Your task to perform on an android device: Search for the best rated circular saw on Lowes.com Image 0: 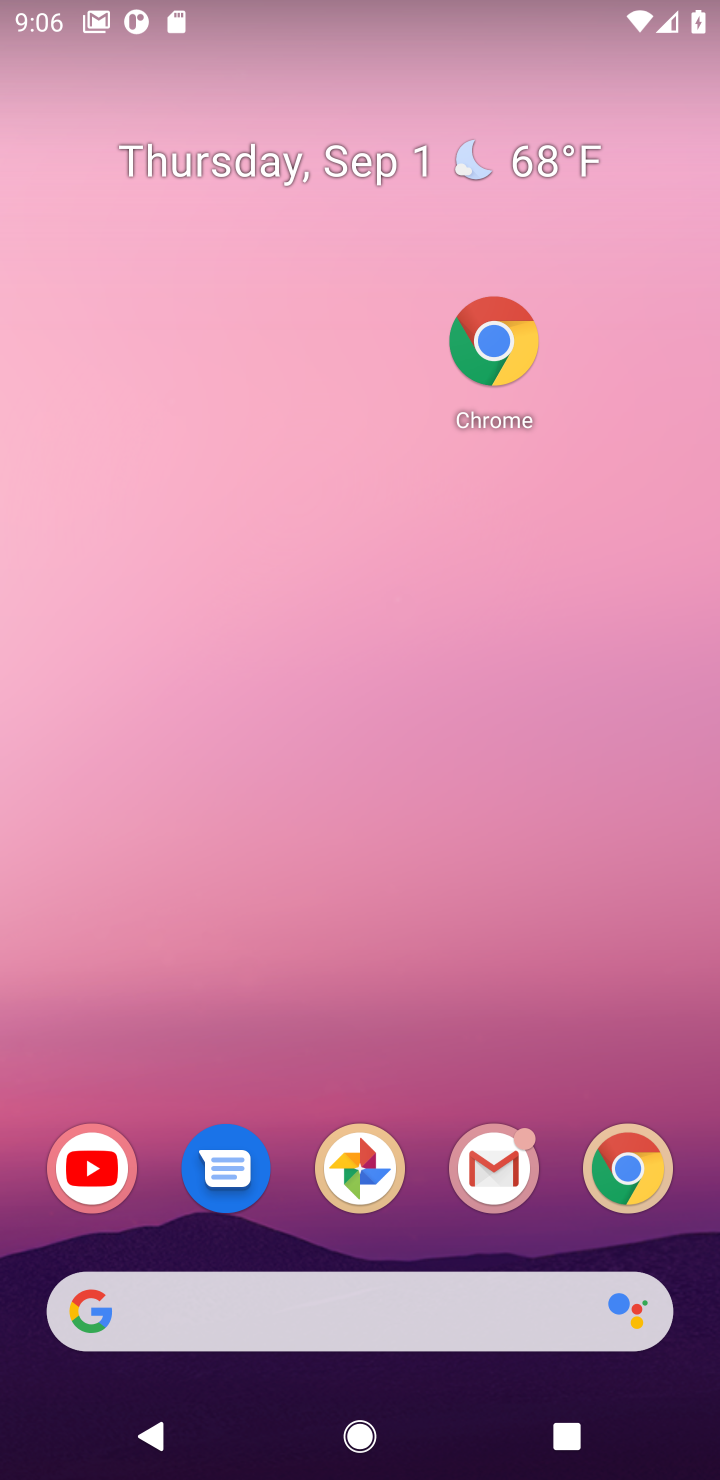
Step 0: drag from (290, 1209) to (315, 292)
Your task to perform on an android device: Search for the best rated circular saw on Lowes.com Image 1: 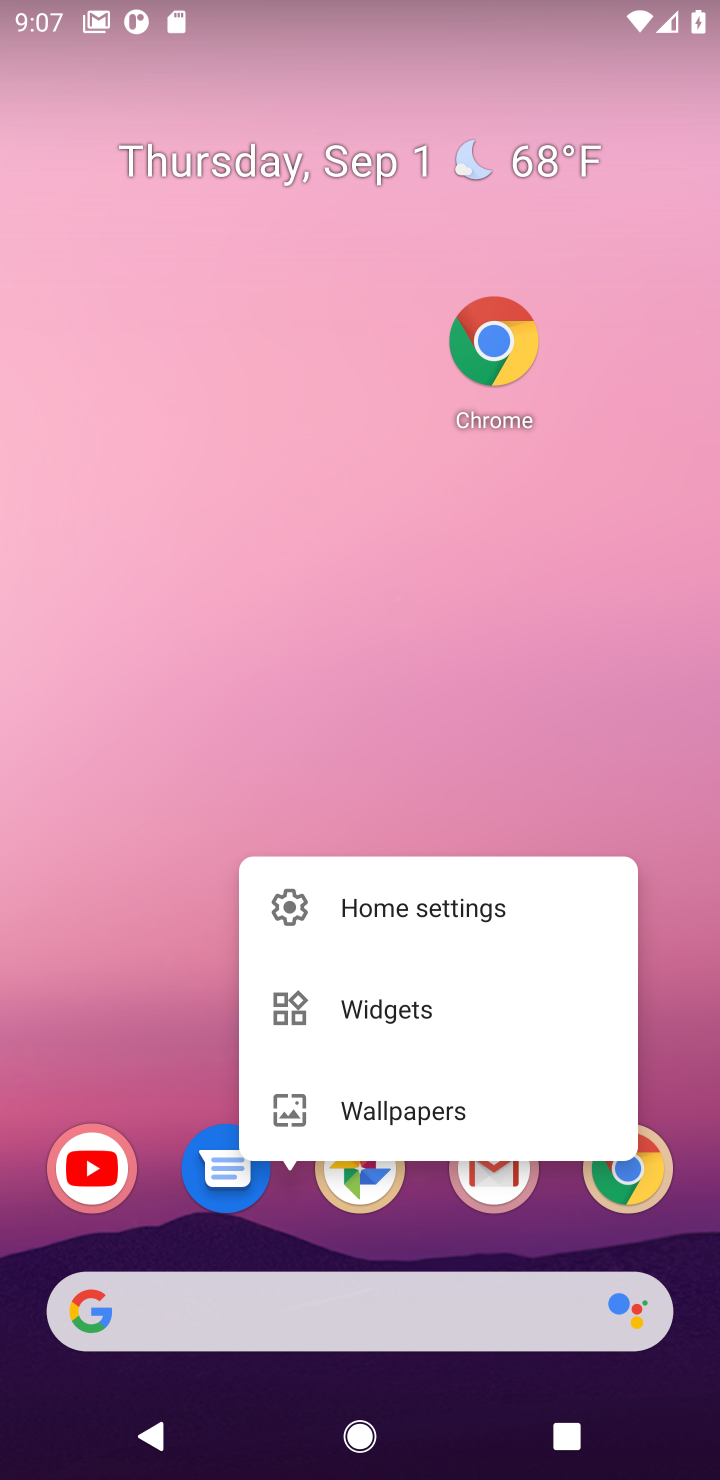
Step 1: click (378, 777)
Your task to perform on an android device: Search for the best rated circular saw on Lowes.com Image 2: 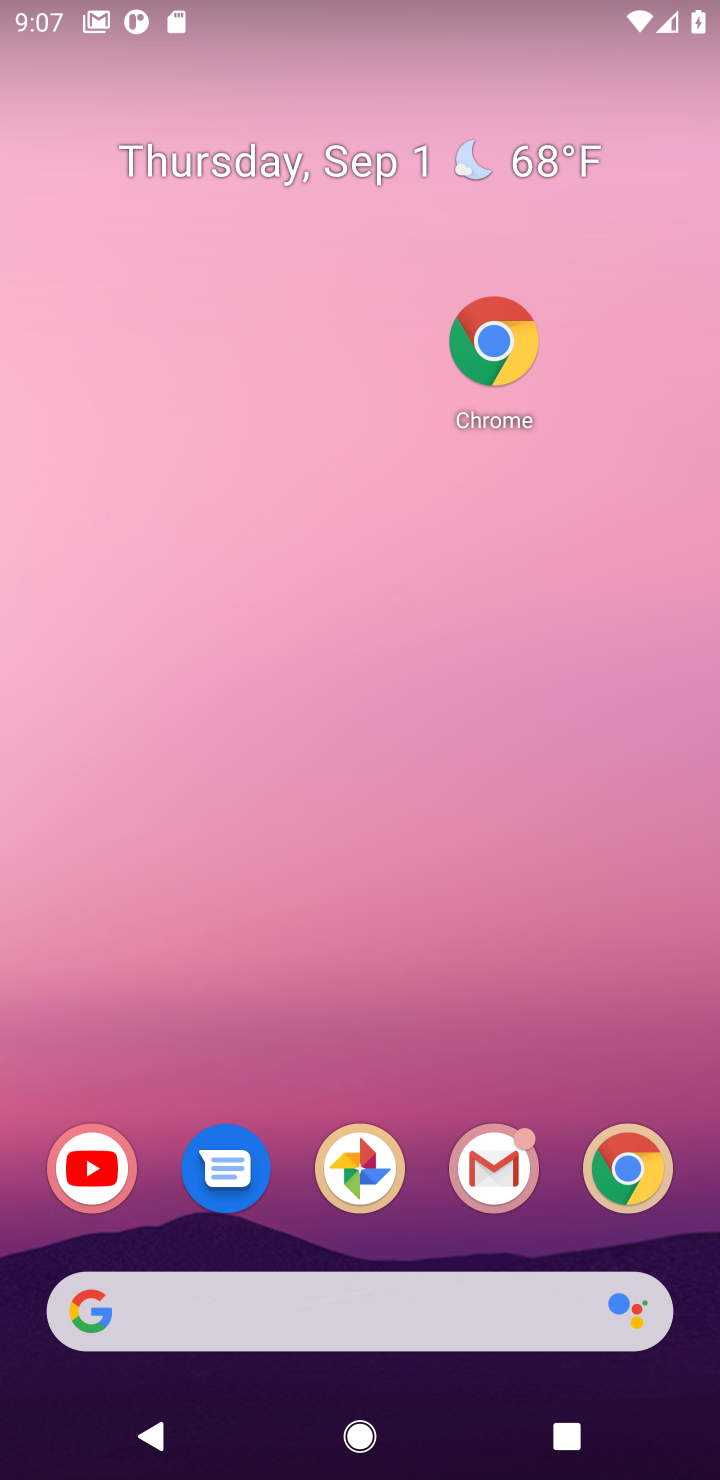
Step 2: drag from (330, 1293) to (323, 168)
Your task to perform on an android device: Search for the best rated circular saw on Lowes.com Image 3: 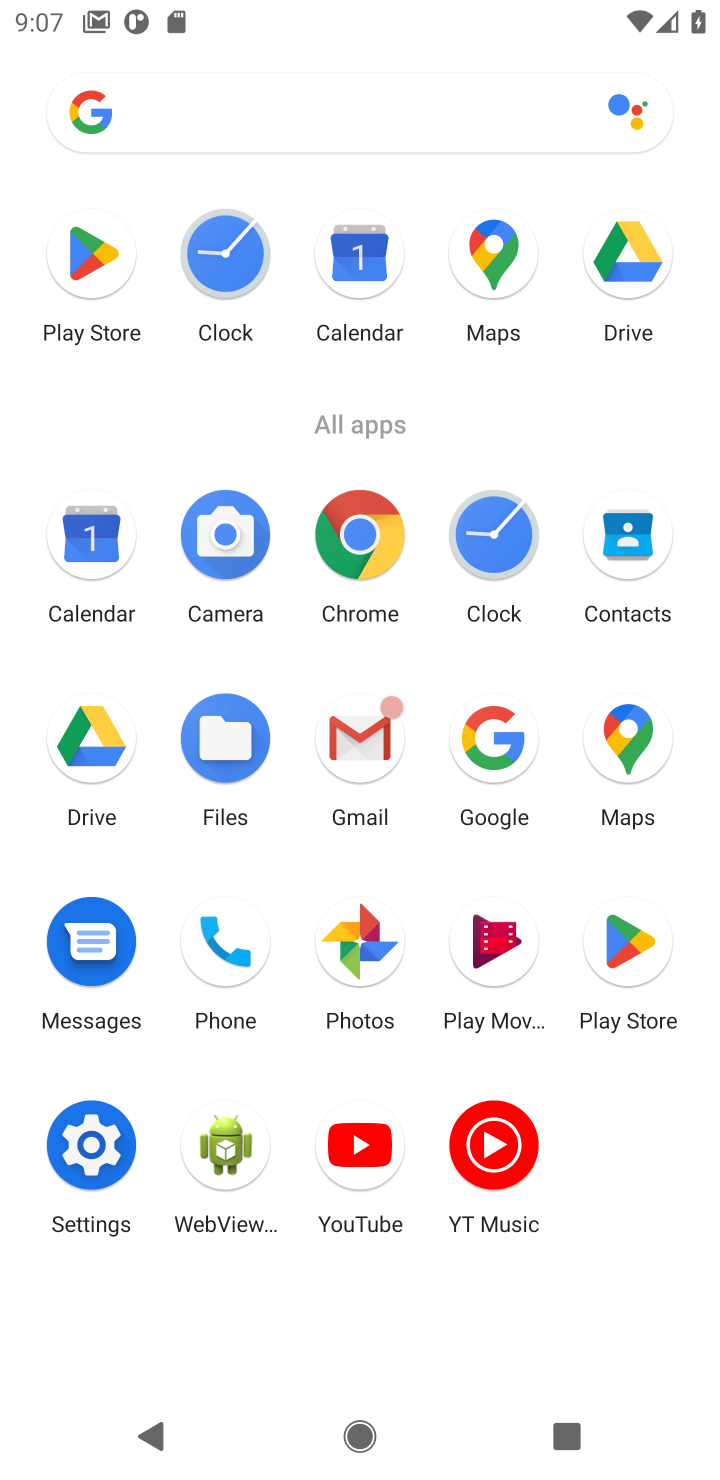
Step 3: click (489, 735)
Your task to perform on an android device: Search for the best rated circular saw on Lowes.com Image 4: 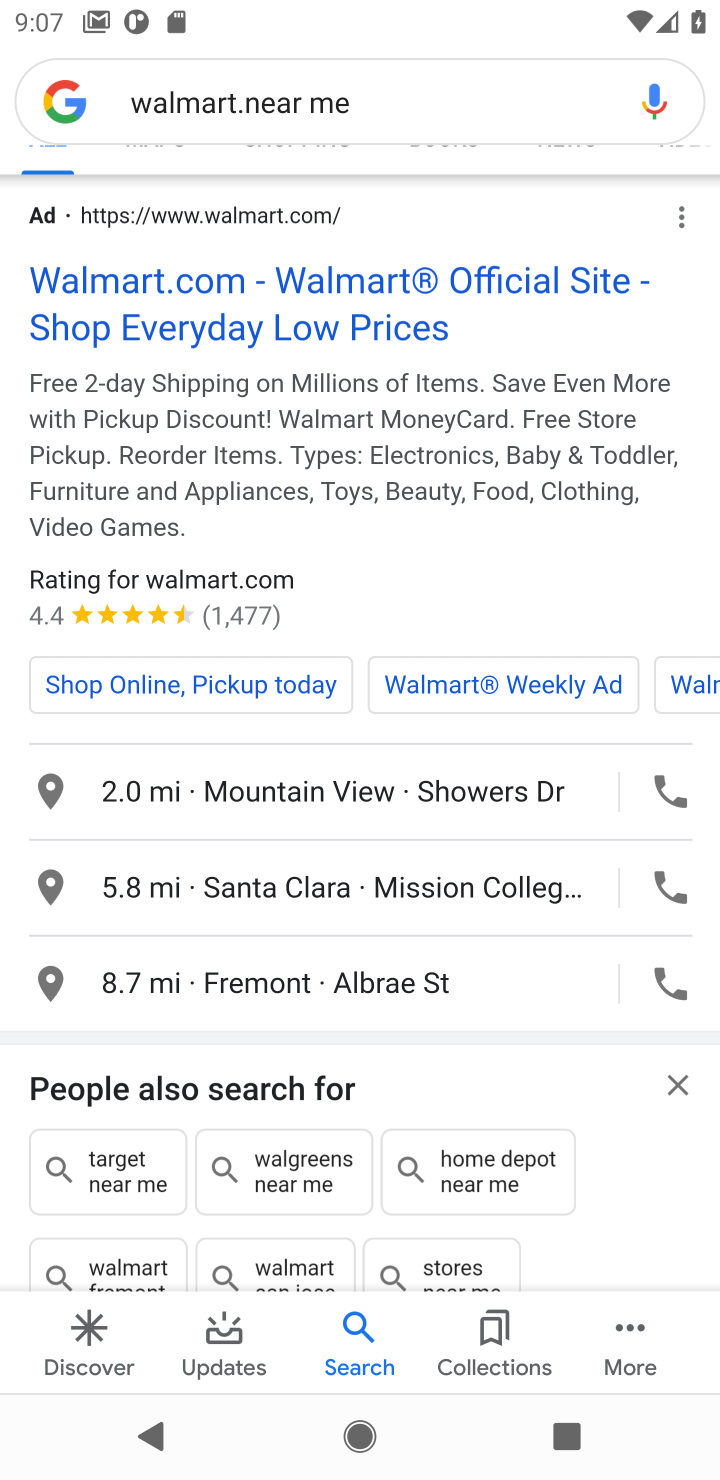
Step 4: click (431, 84)
Your task to perform on an android device: Search for the best rated circular saw on Lowes.com Image 5: 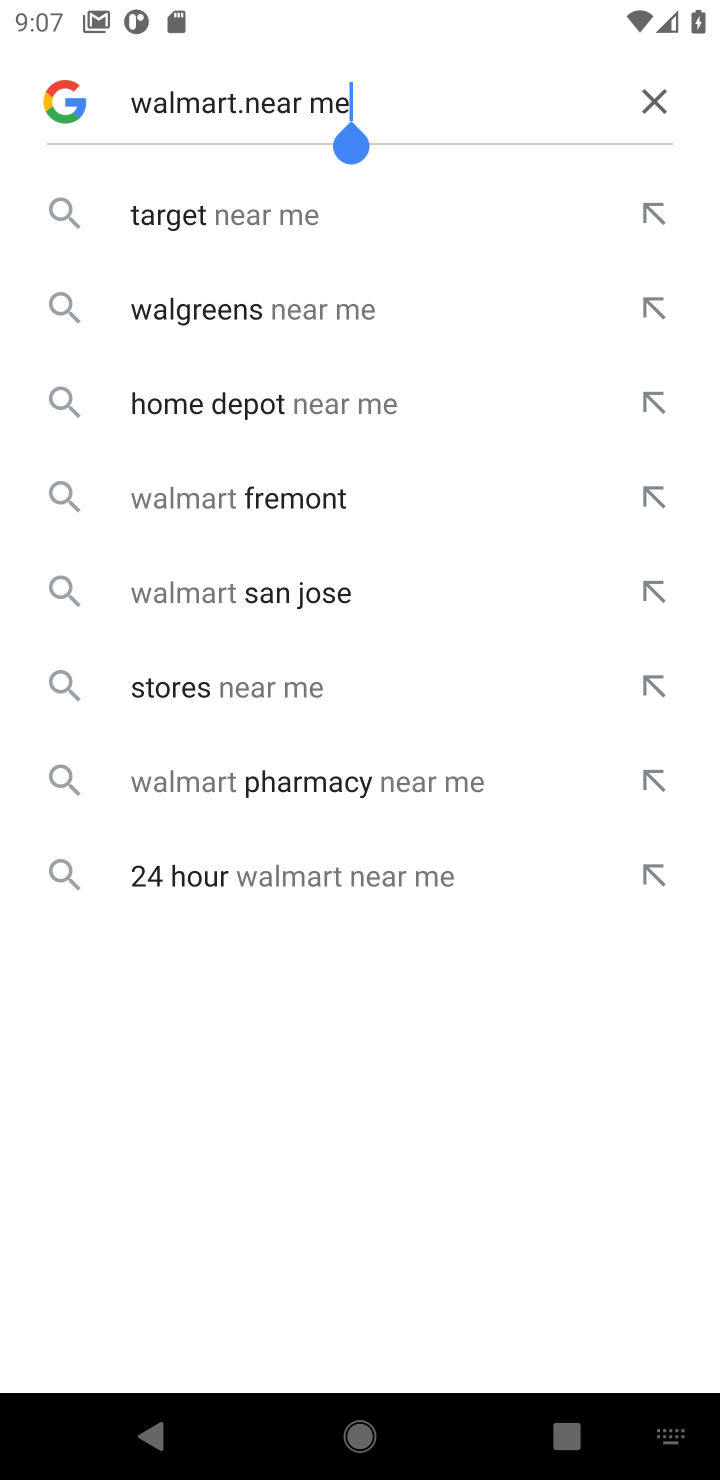
Step 5: click (645, 108)
Your task to perform on an android device: Search for the best rated circular saw on Lowes.com Image 6: 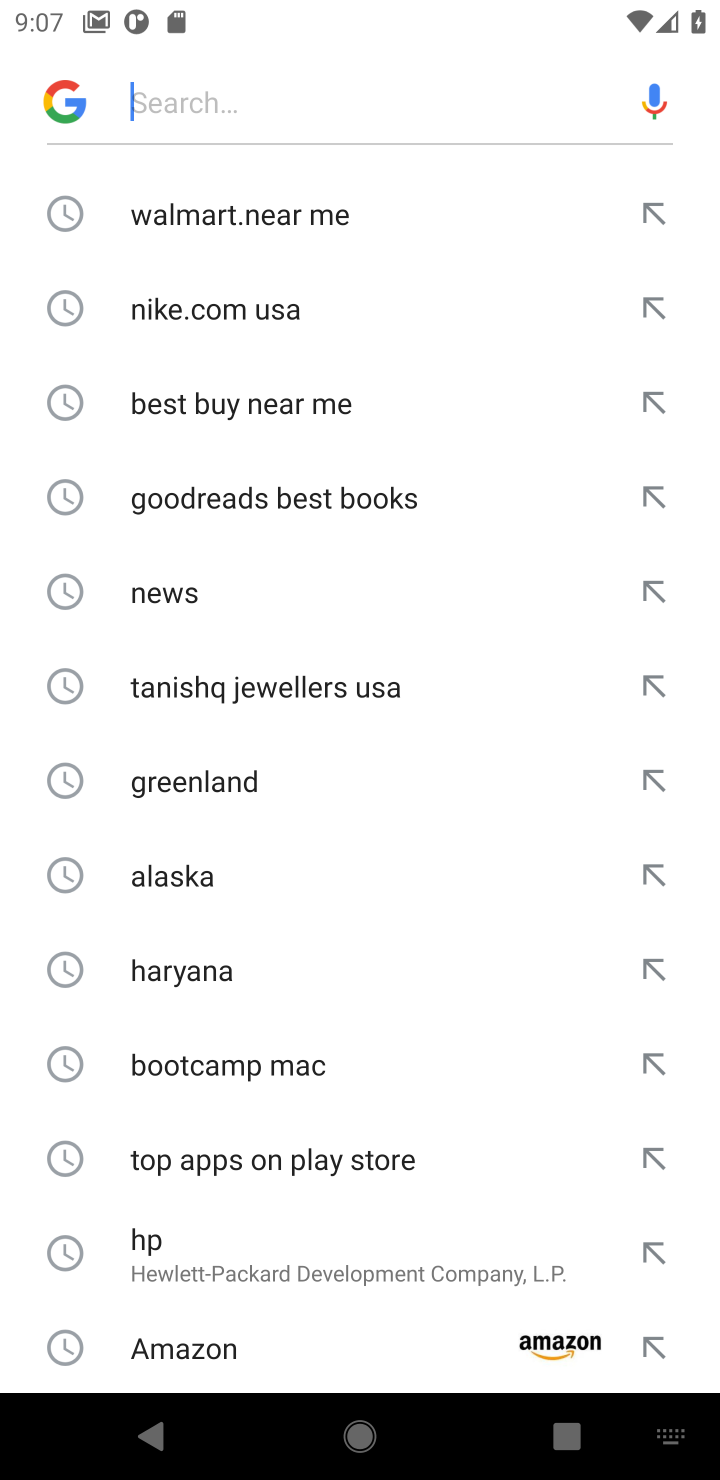
Step 6: click (323, 102)
Your task to perform on an android device: Search for the best rated circular saw on Lowes.com Image 7: 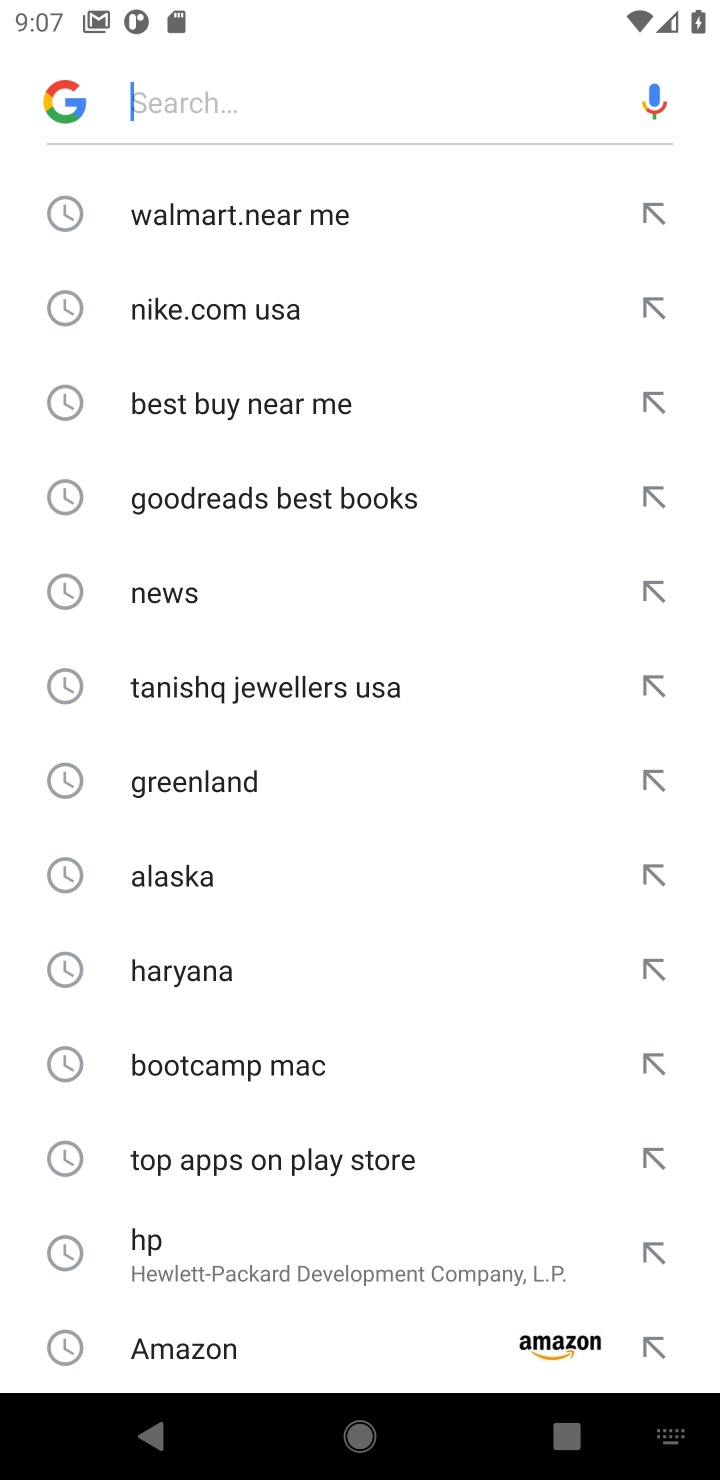
Step 7: type "Lowes.com "
Your task to perform on an android device: Search for the best rated circular saw on Lowes.com Image 8: 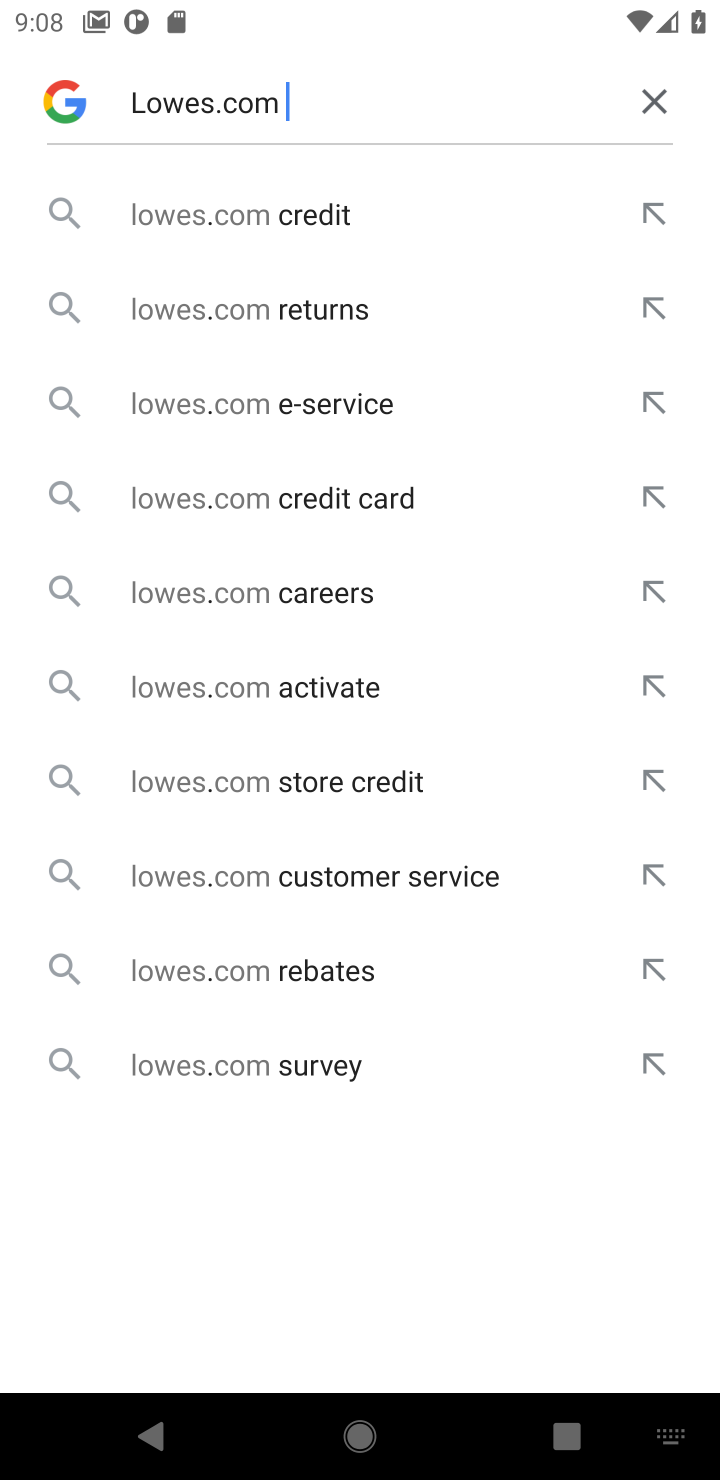
Step 8: click (367, 322)
Your task to perform on an android device: Search for the best rated circular saw on Lowes.com Image 9: 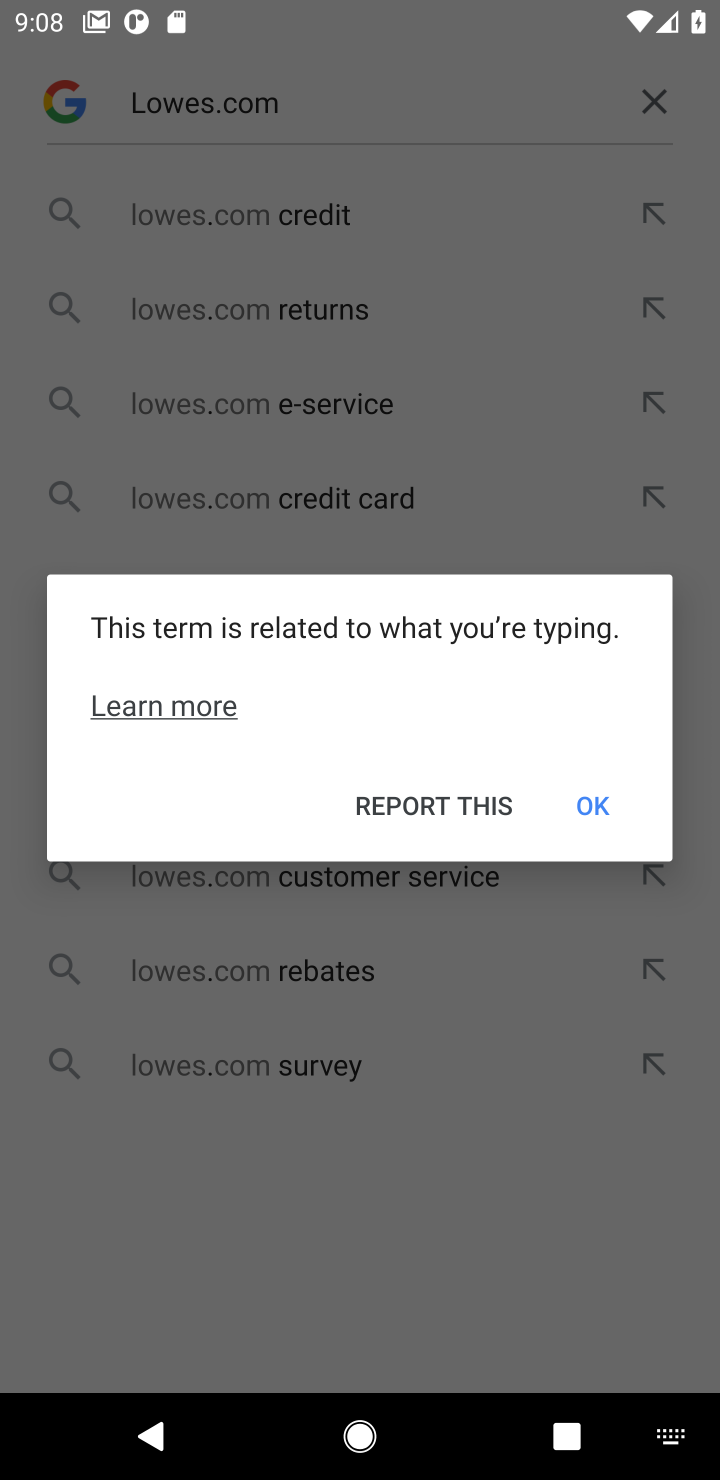
Step 9: click (594, 802)
Your task to perform on an android device: Search for the best rated circular saw on Lowes.com Image 10: 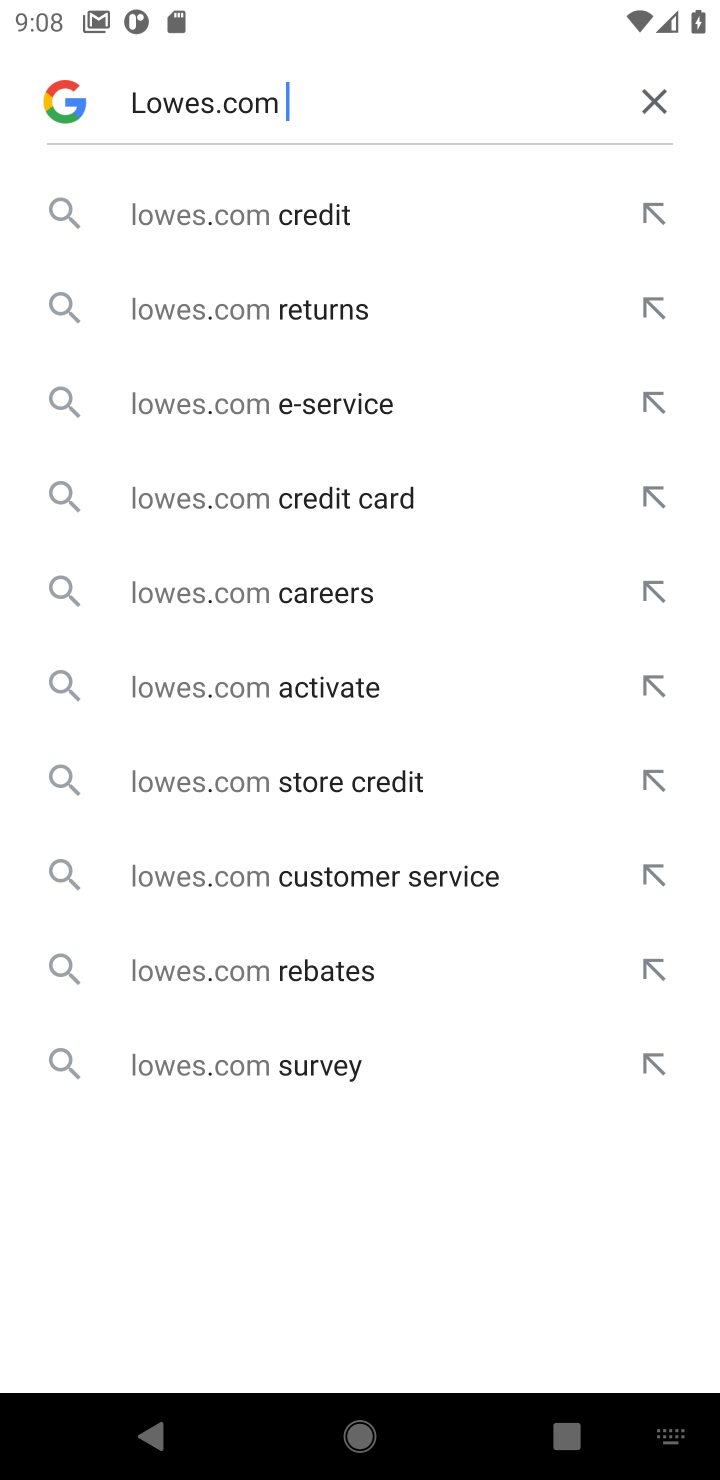
Step 10: click (285, 763)
Your task to perform on an android device: Search for the best rated circular saw on Lowes.com Image 11: 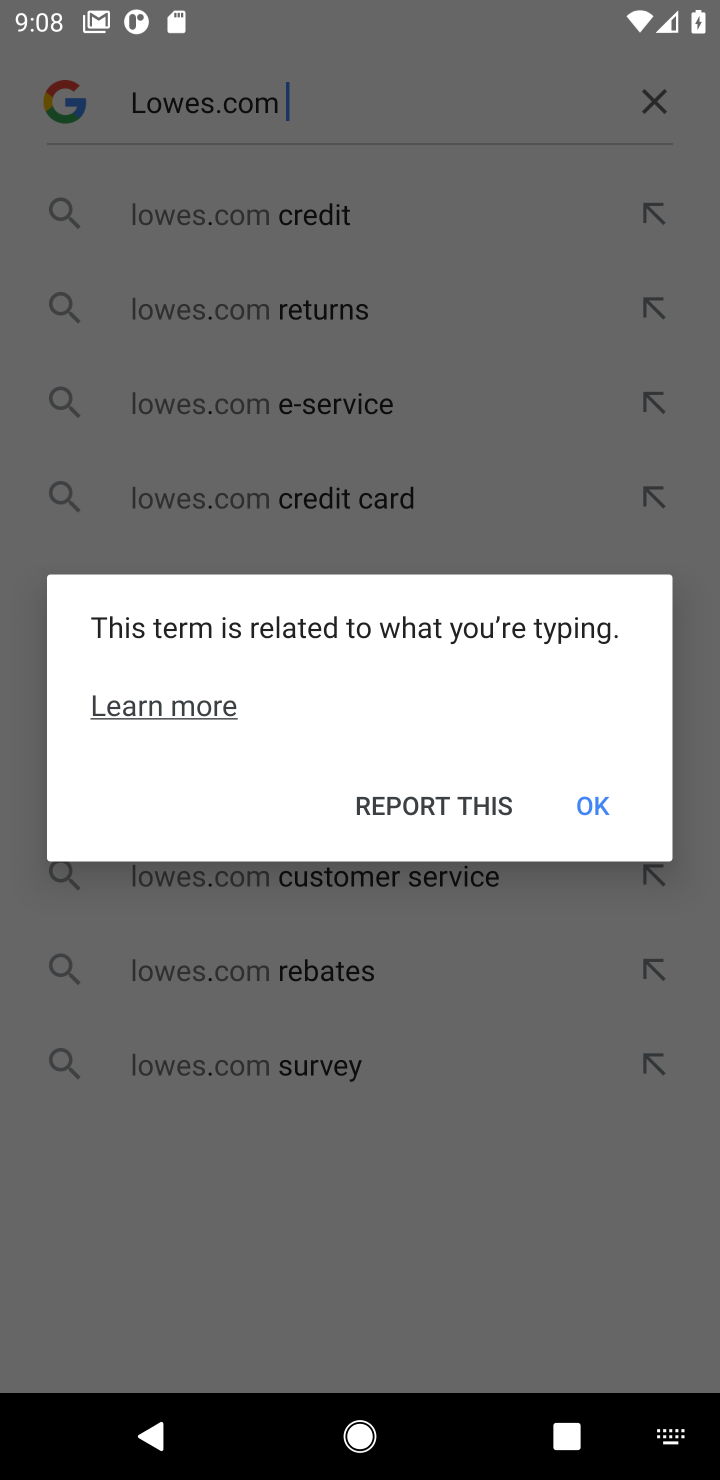
Step 11: click (584, 802)
Your task to perform on an android device: Search for the best rated circular saw on Lowes.com Image 12: 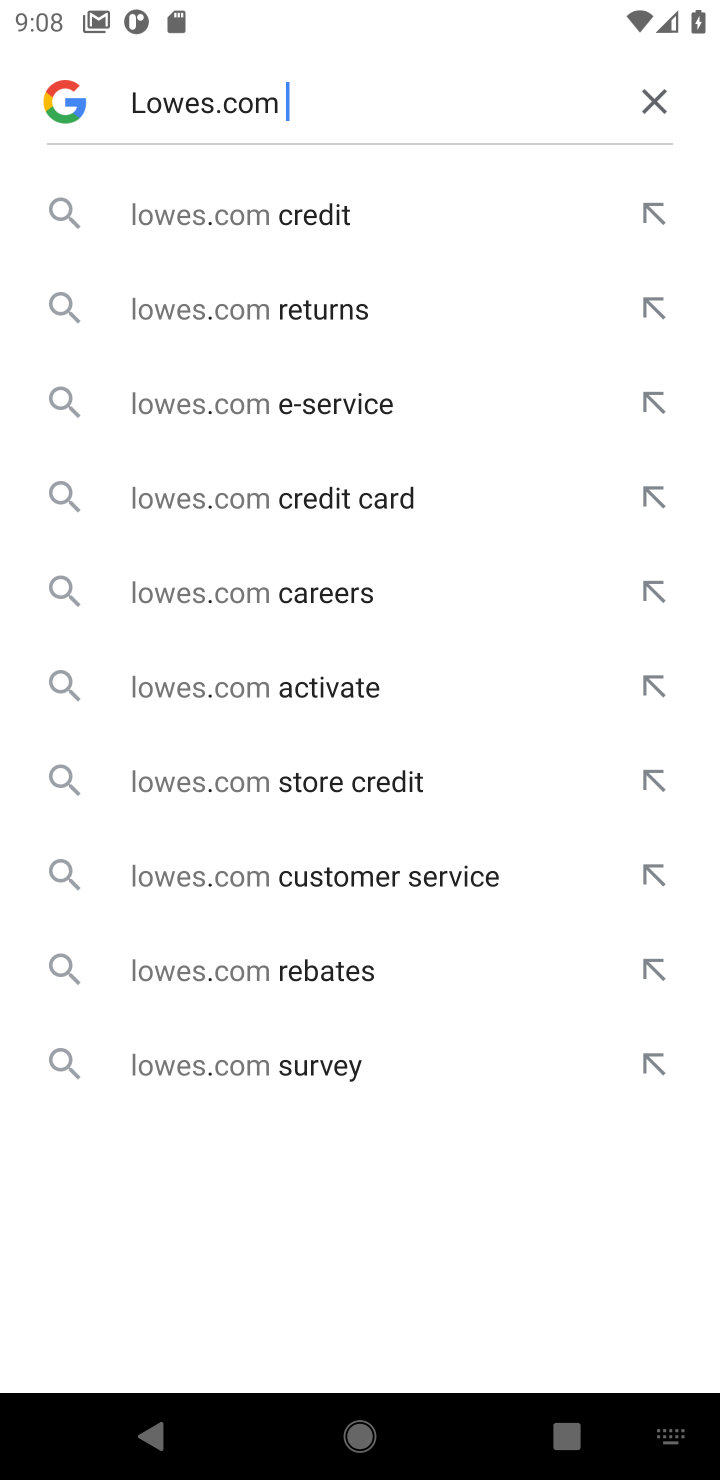
Step 12: click (648, 99)
Your task to perform on an android device: Search for the best rated circular saw on Lowes.com Image 13: 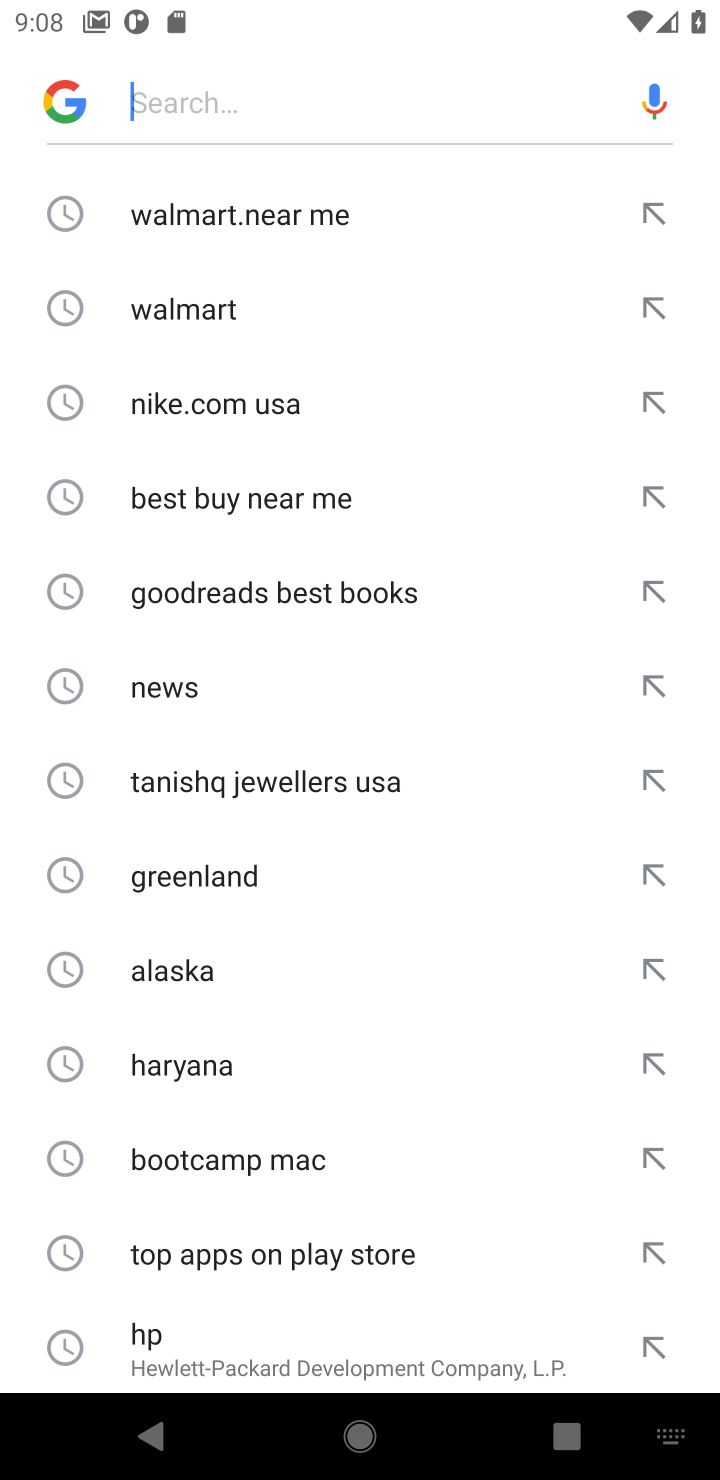
Step 13: click (331, 83)
Your task to perform on an android device: Search for the best rated circular saw on Lowes.com Image 14: 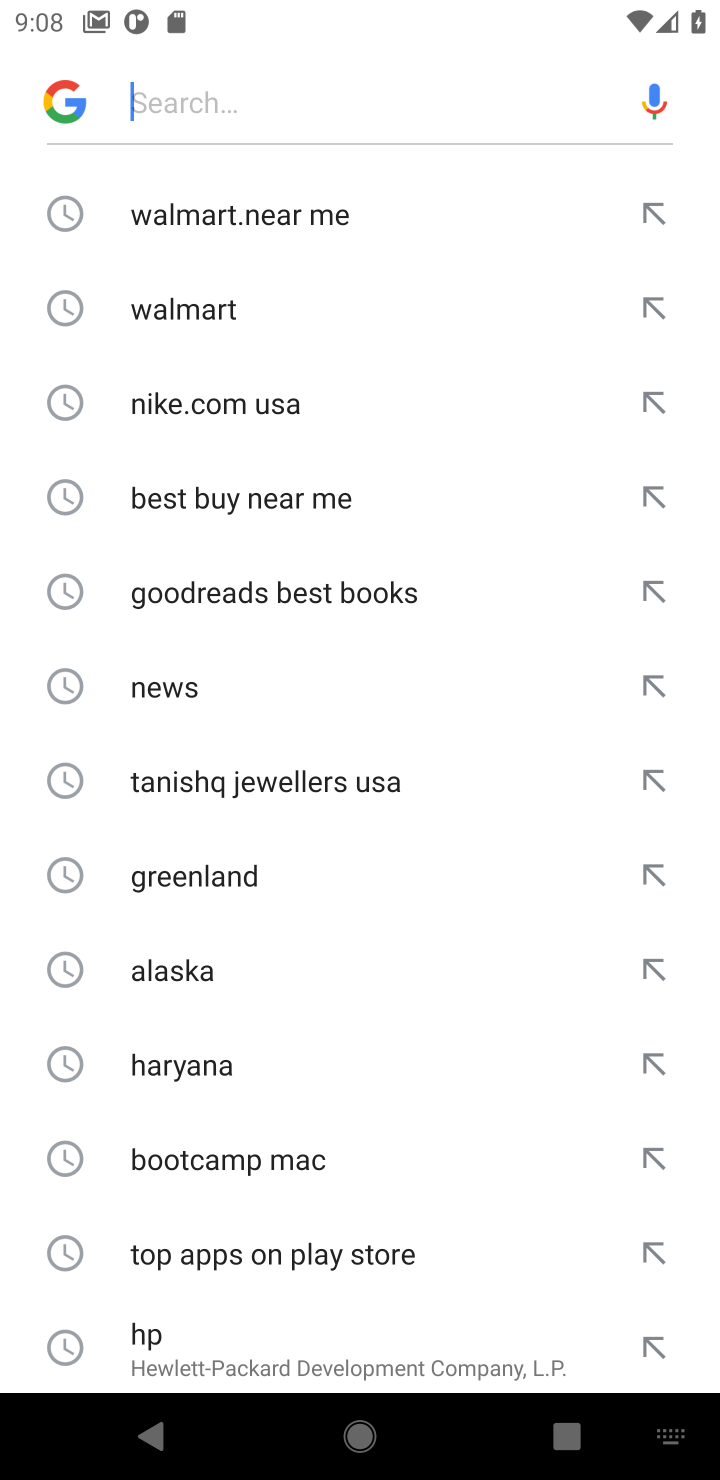
Step 14: type "the best rated circular saw on Lowes.com "
Your task to perform on an android device: Search for the best rated circular saw on Lowes.com Image 15: 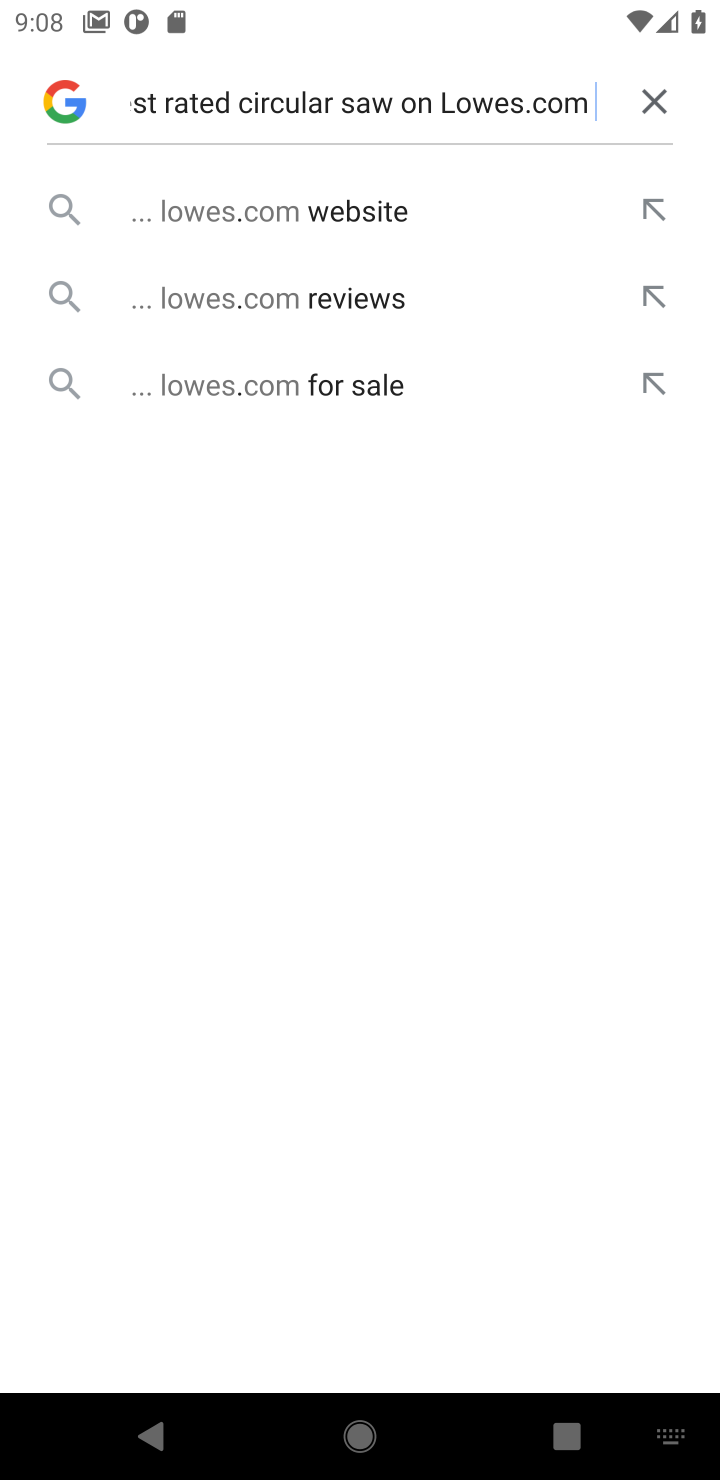
Step 15: click (276, 228)
Your task to perform on an android device: Search for the best rated circular saw on Lowes.com Image 16: 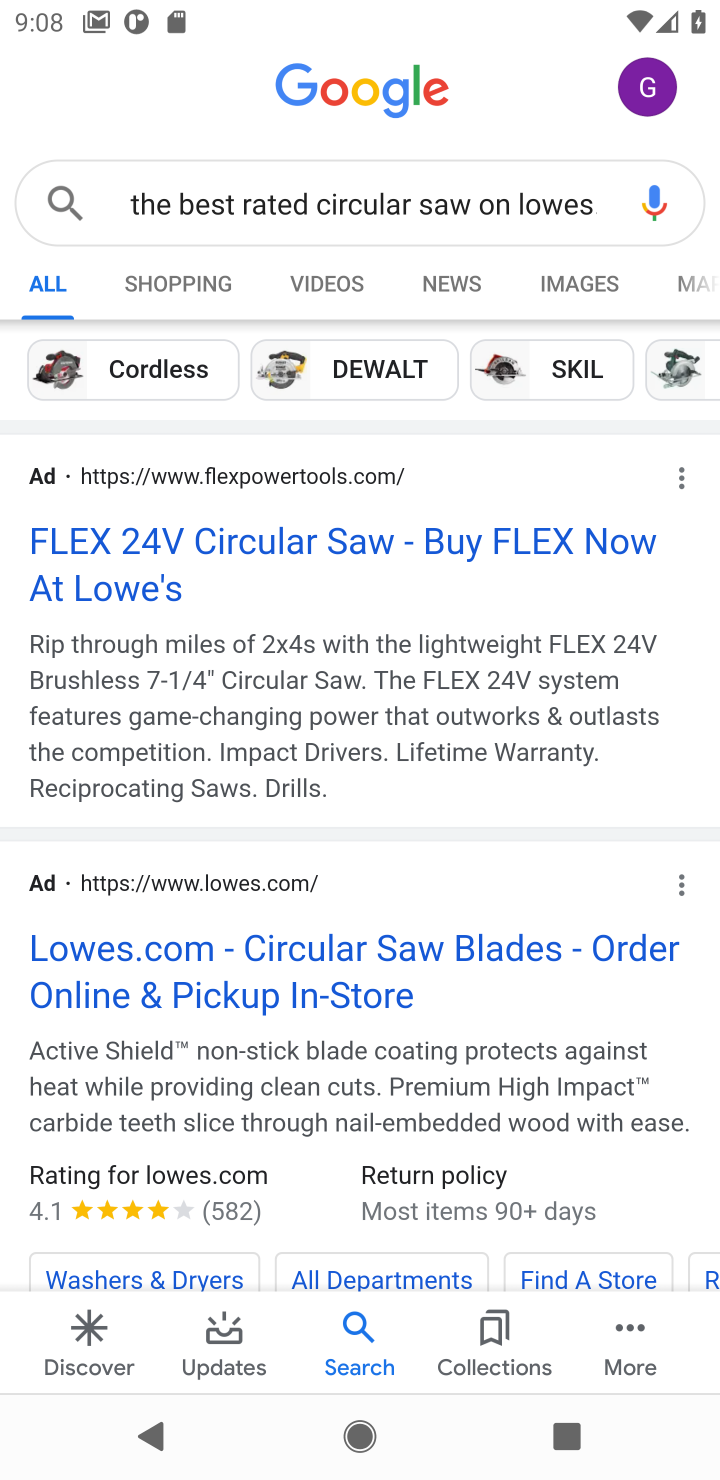
Step 16: click (340, 1006)
Your task to perform on an android device: Search for the best rated circular saw on Lowes.com Image 17: 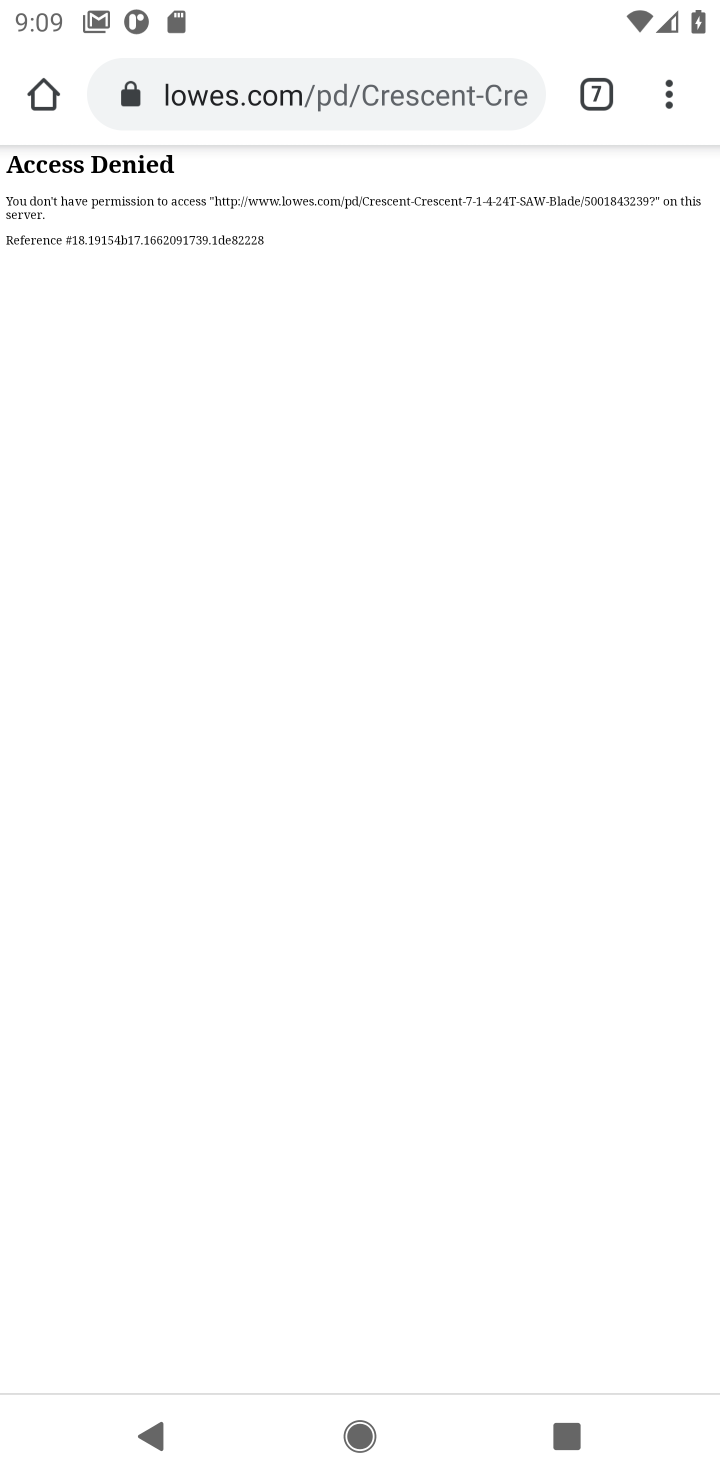
Step 17: press back button
Your task to perform on an android device: Search for the best rated circular saw on Lowes.com Image 18: 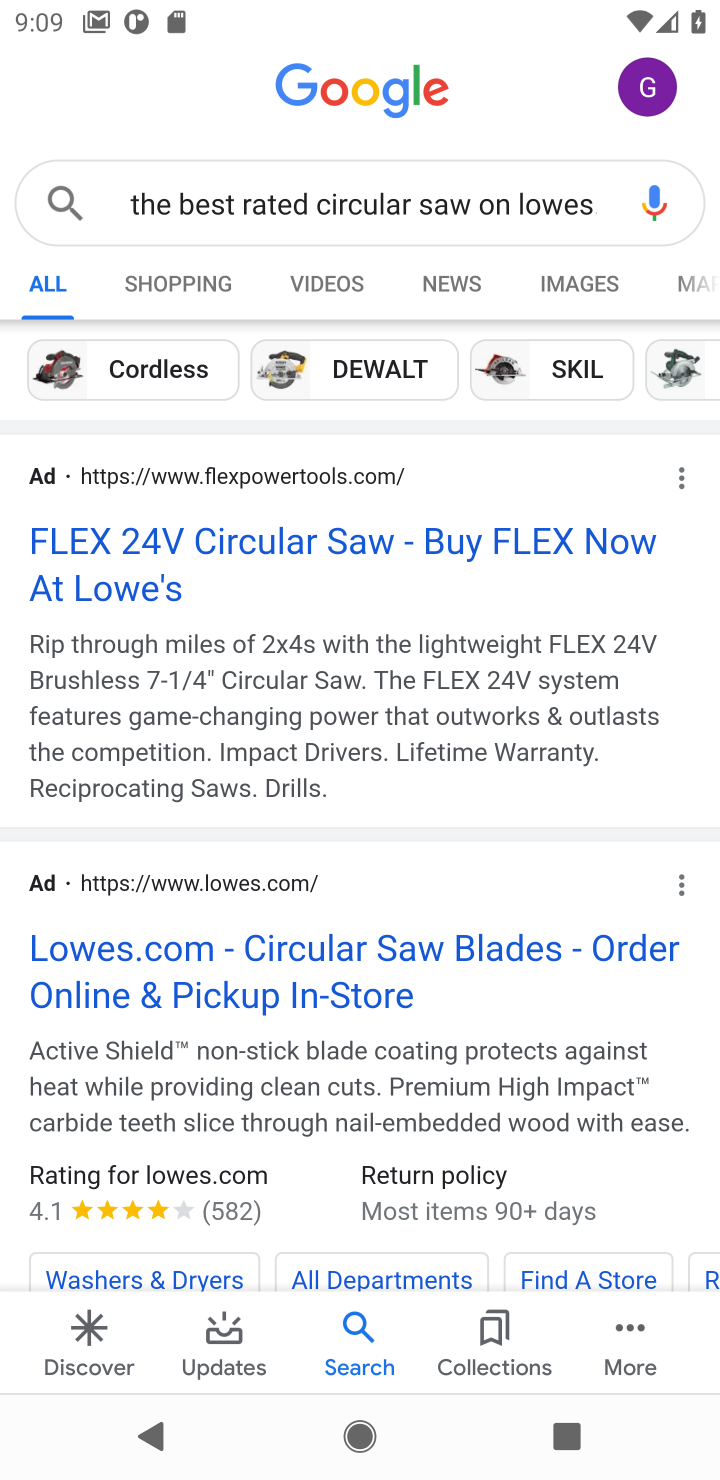
Step 18: click (457, 532)
Your task to perform on an android device: Search for the best rated circular saw on Lowes.com Image 19: 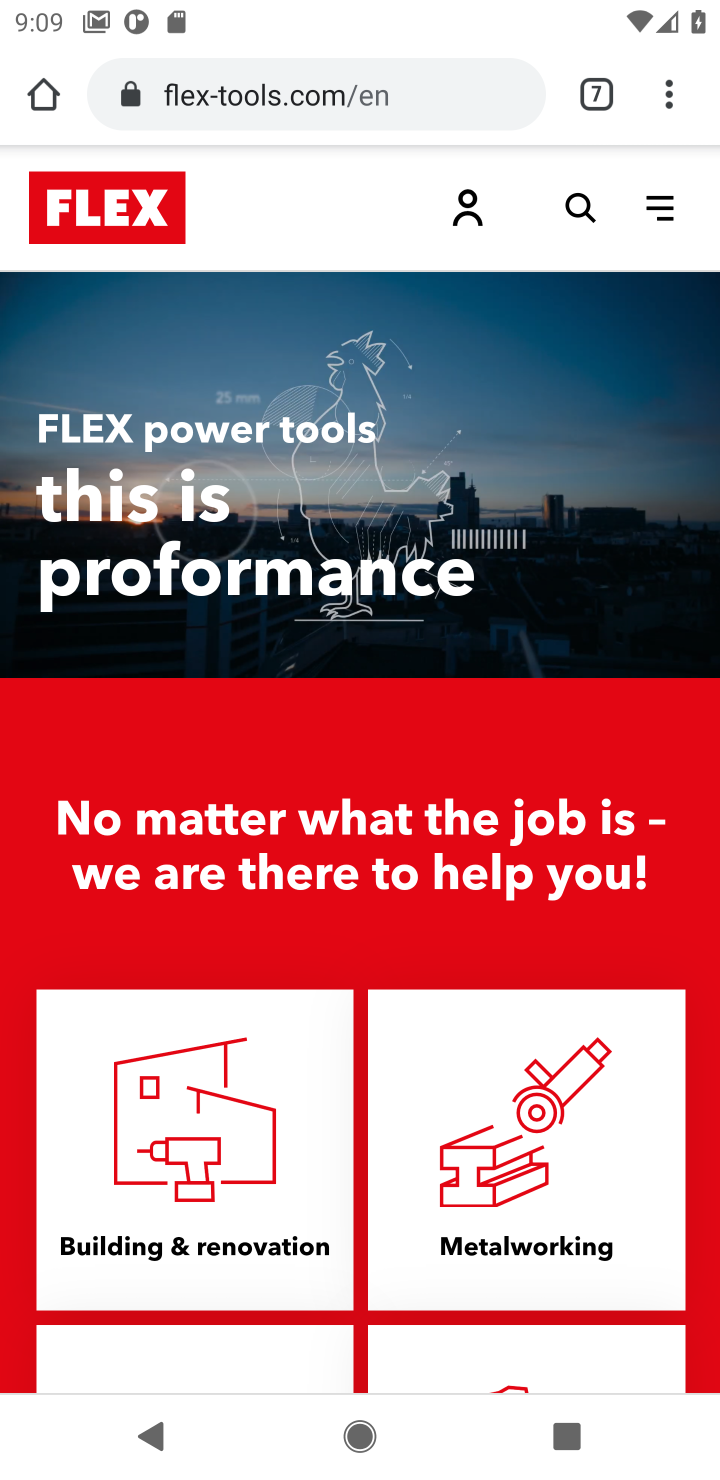
Step 19: click (578, 188)
Your task to perform on an android device: Search for the best rated circular saw on Lowes.com Image 20: 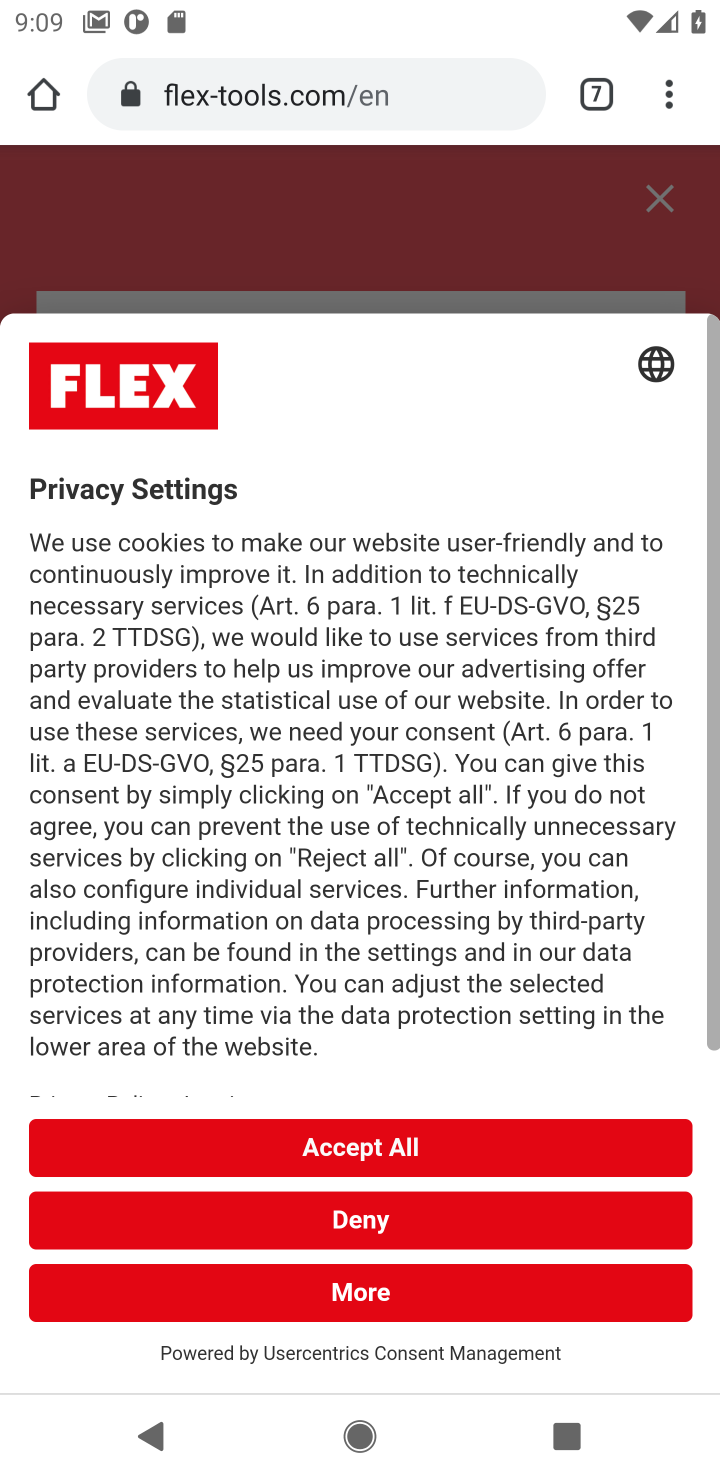
Step 20: click (485, 1164)
Your task to perform on an android device: Search for the best rated circular saw on Lowes.com Image 21: 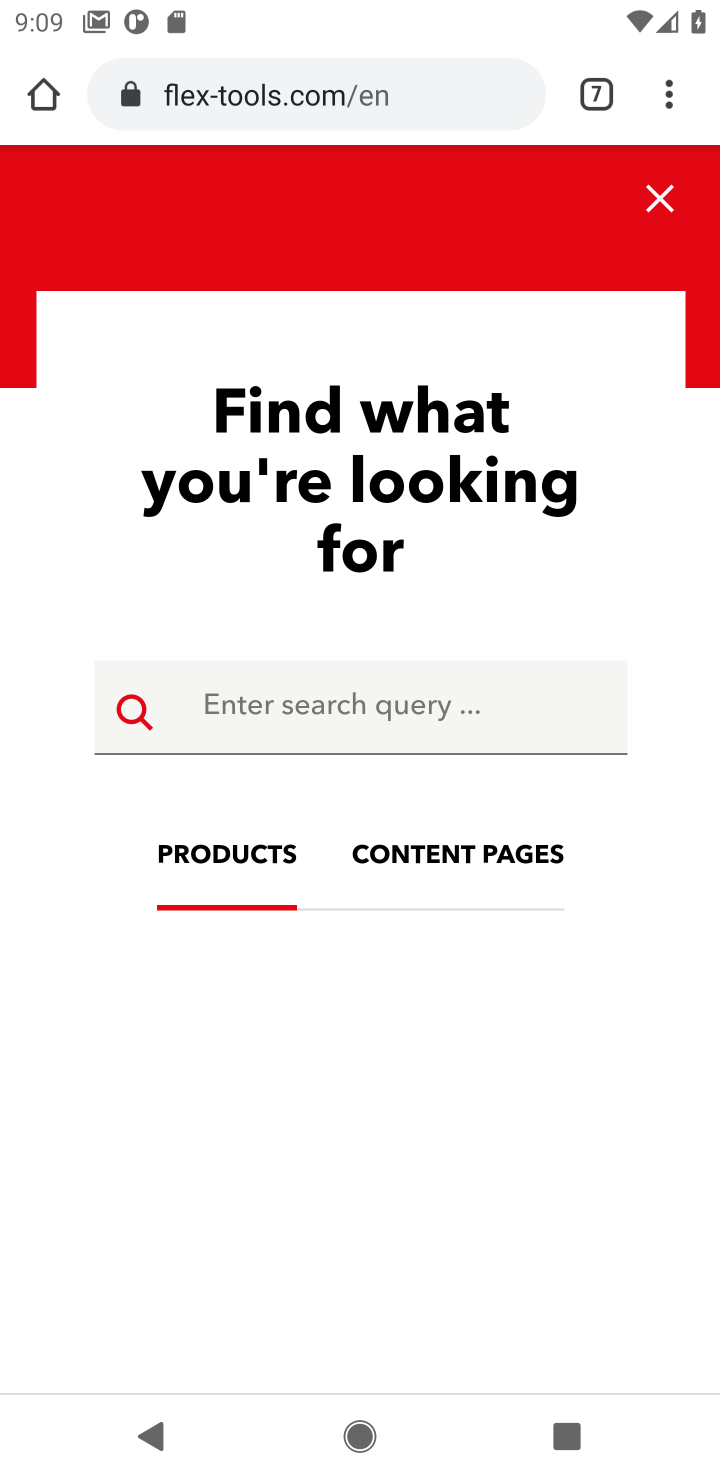
Step 21: click (334, 681)
Your task to perform on an android device: Search for the best rated circular saw on Lowes.com Image 22: 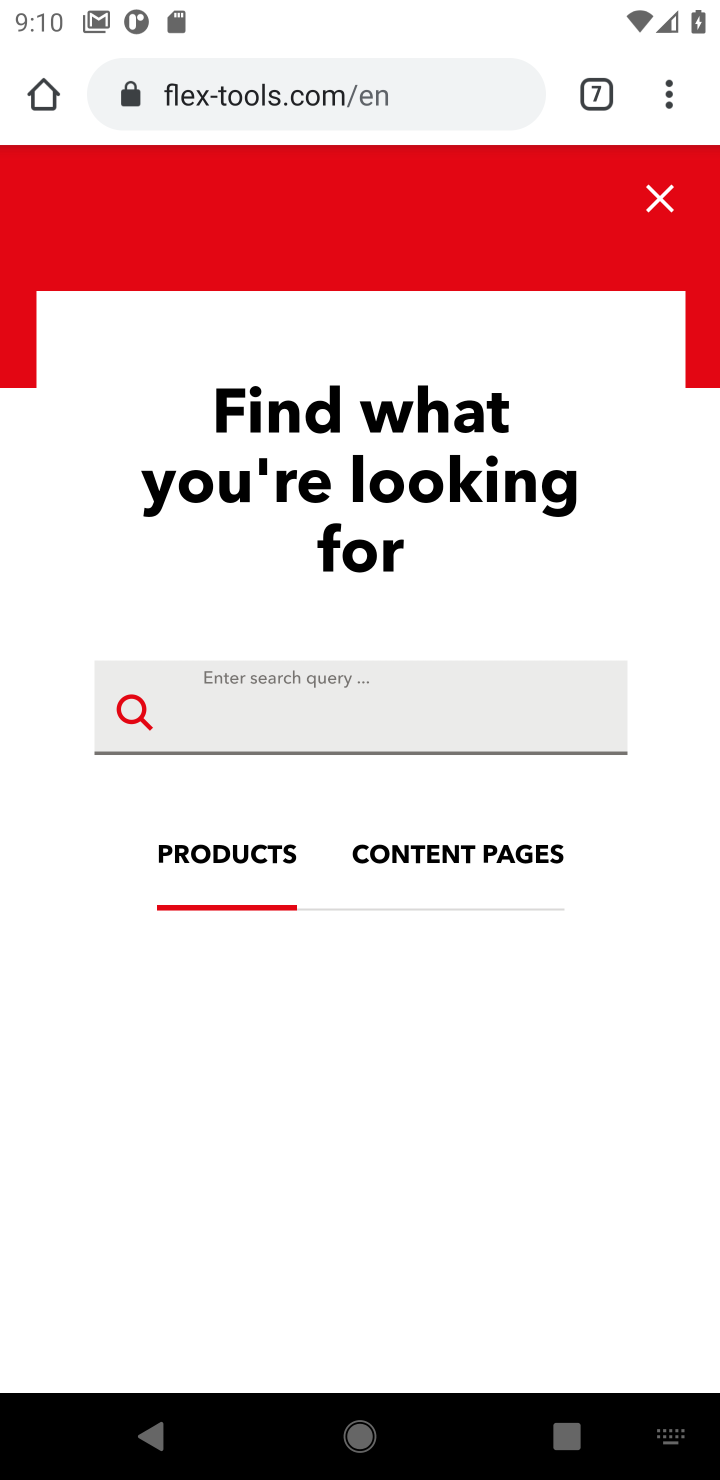
Step 22: click (457, 677)
Your task to perform on an android device: Search for the best rated circular saw on Lowes.com Image 23: 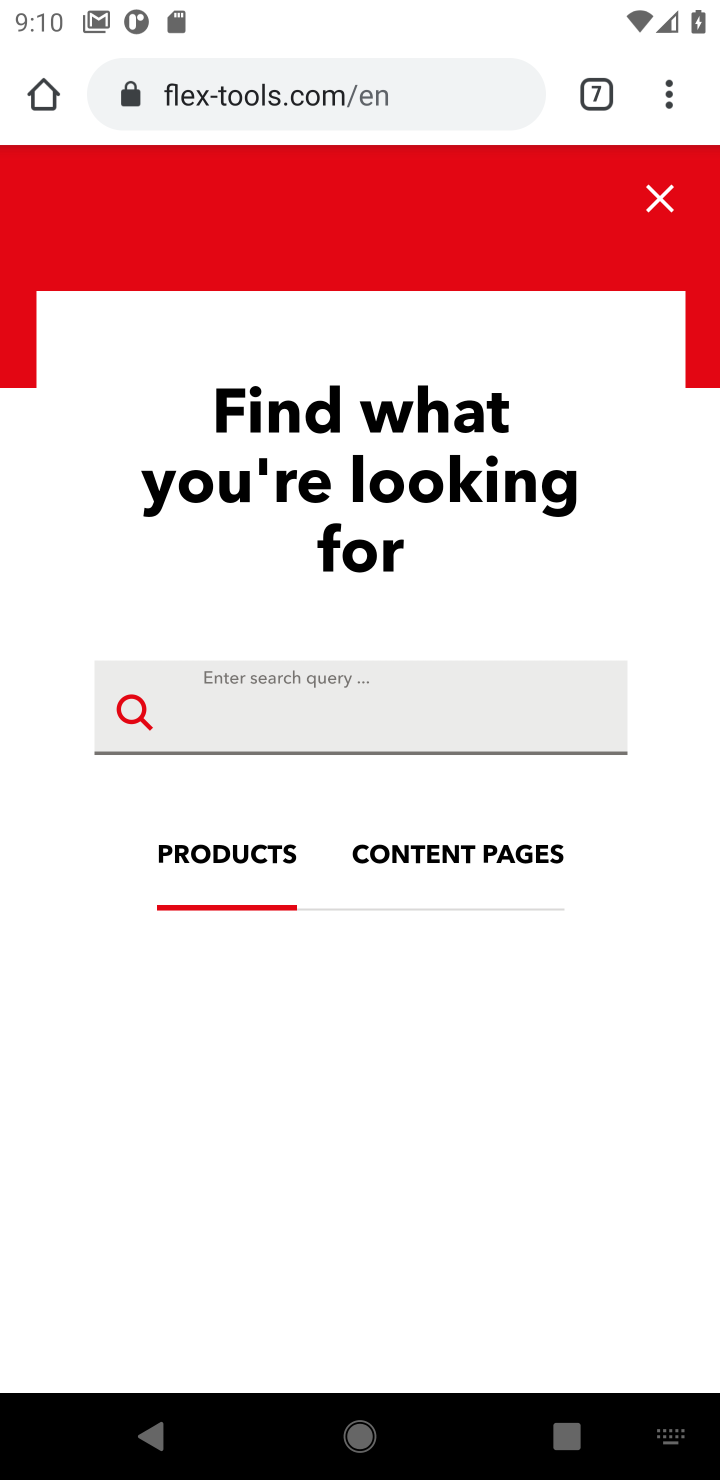
Step 23: type "circular saw "
Your task to perform on an android device: Search for the best rated circular saw on Lowes.com Image 24: 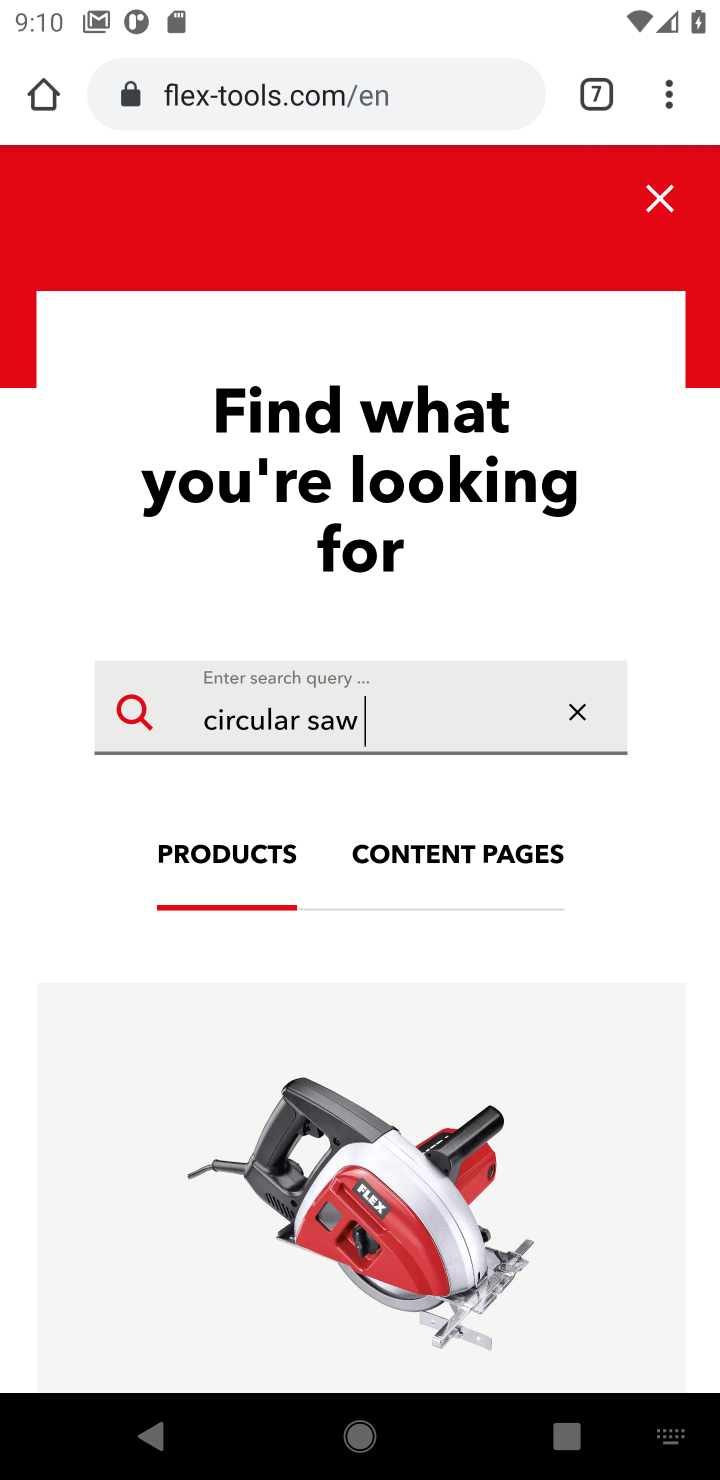
Step 24: click (393, 704)
Your task to perform on an android device: Search for the best rated circular saw on Lowes.com Image 25: 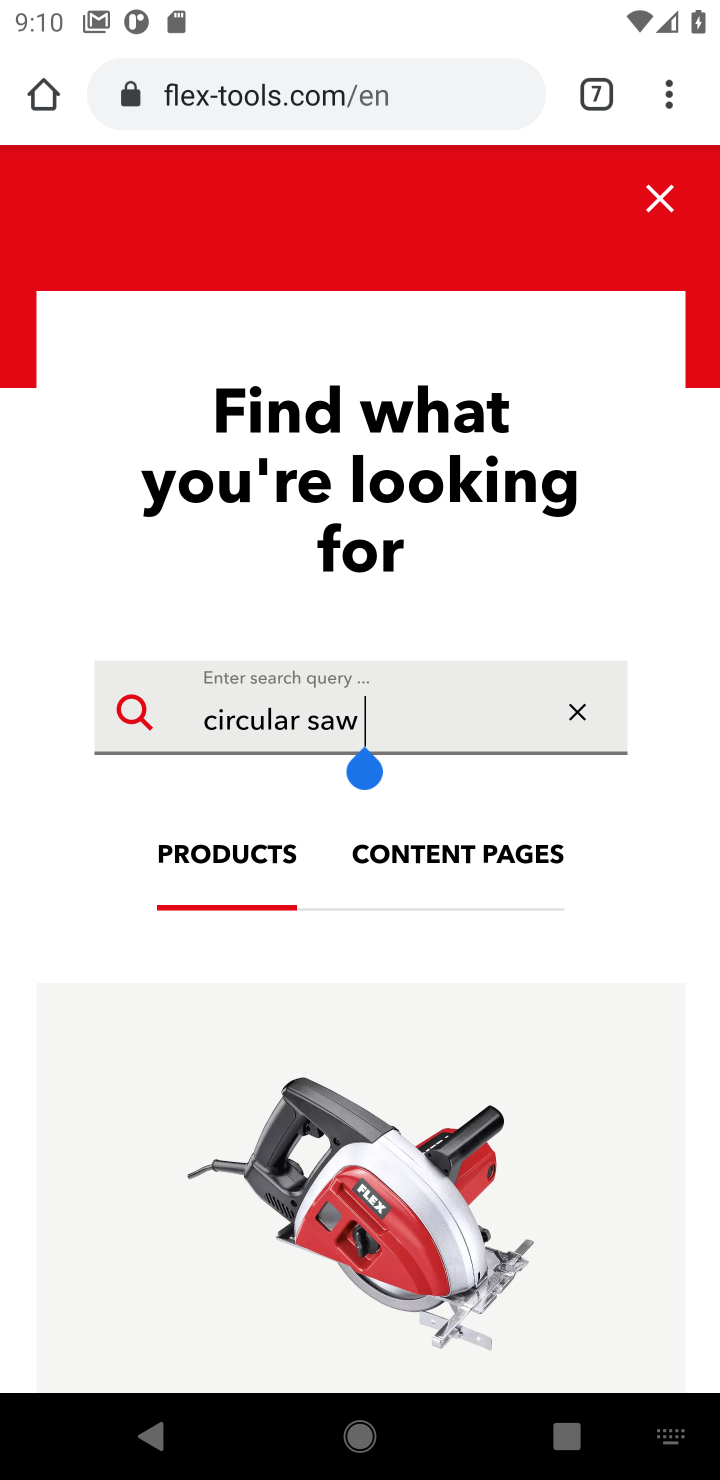
Step 25: drag from (377, 1116) to (498, 244)
Your task to perform on an android device: Search for the best rated circular saw on Lowes.com Image 26: 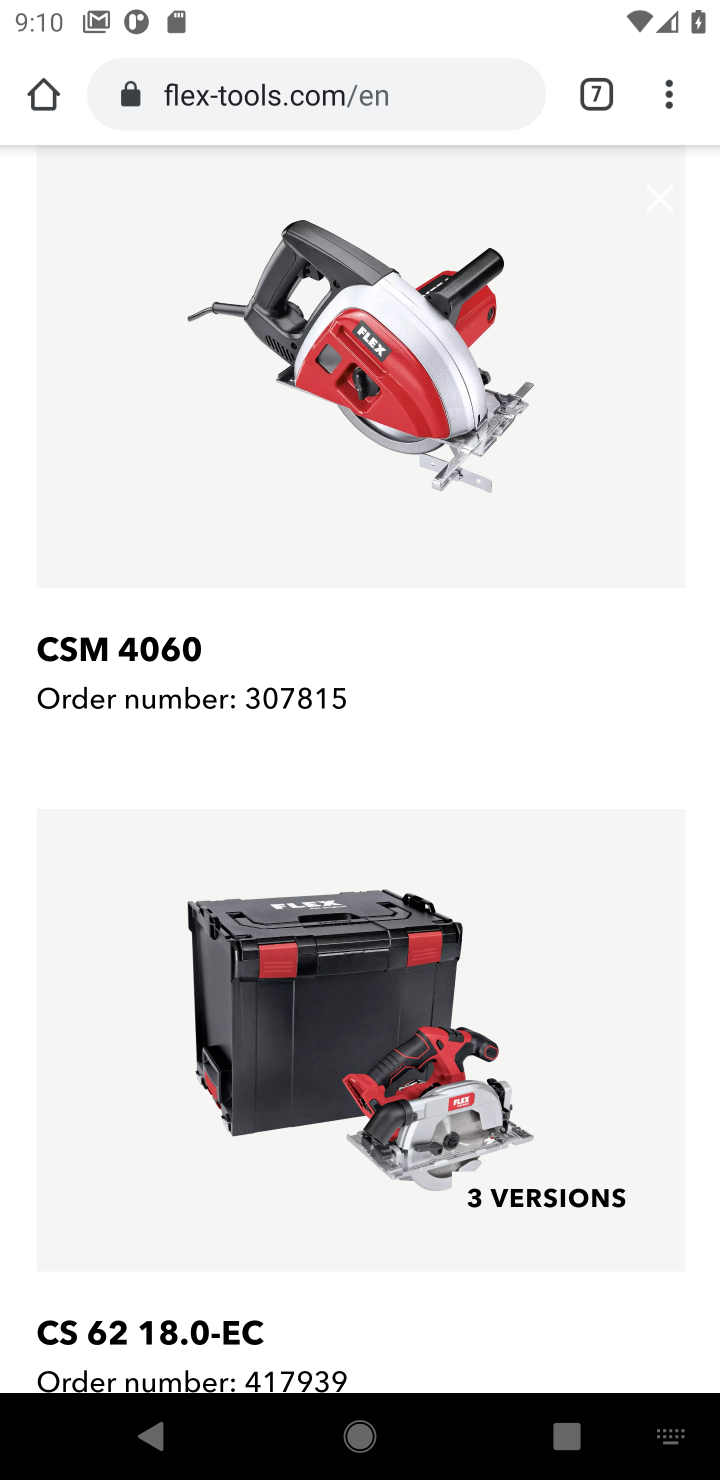
Step 26: drag from (399, 476) to (268, 1274)
Your task to perform on an android device: Search for the best rated circular saw on Lowes.com Image 27: 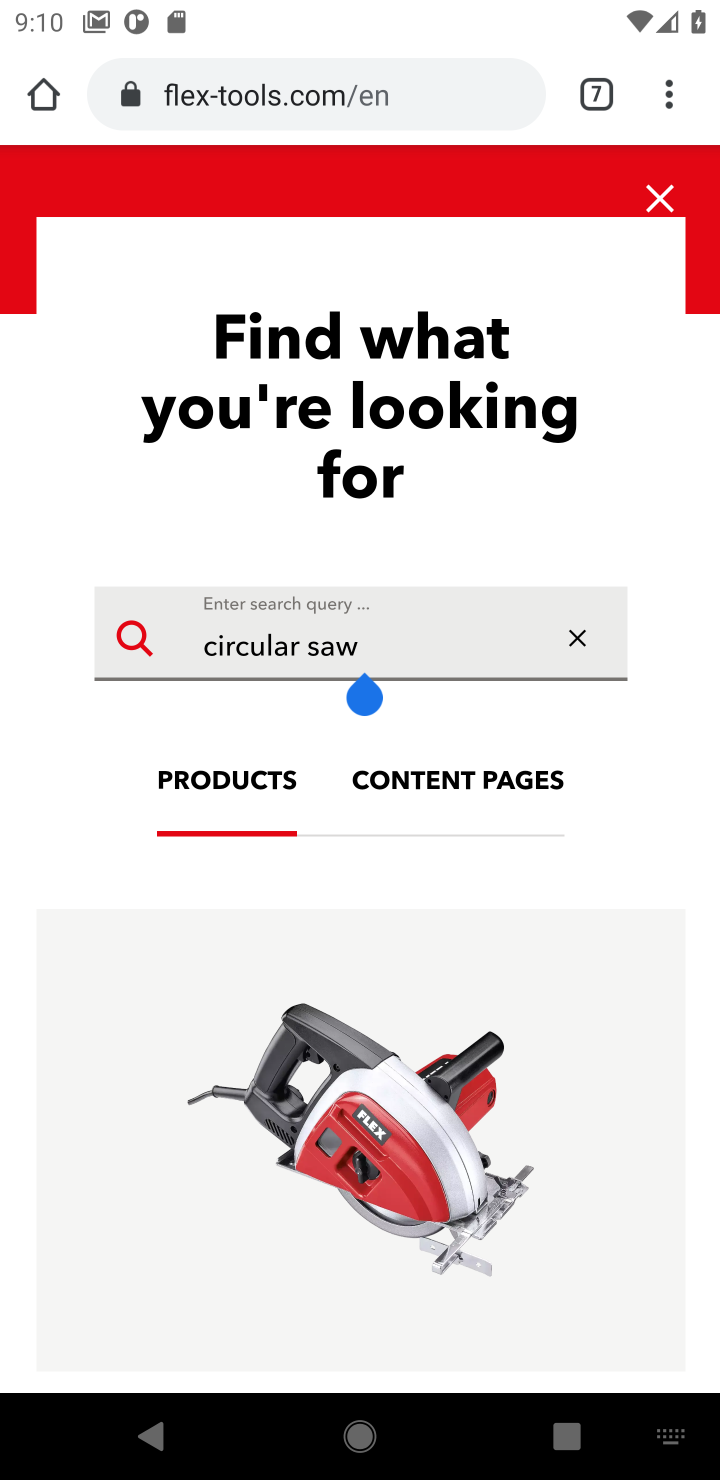
Step 27: click (422, 619)
Your task to perform on an android device: Search for the best rated circular saw on Lowes.com Image 28: 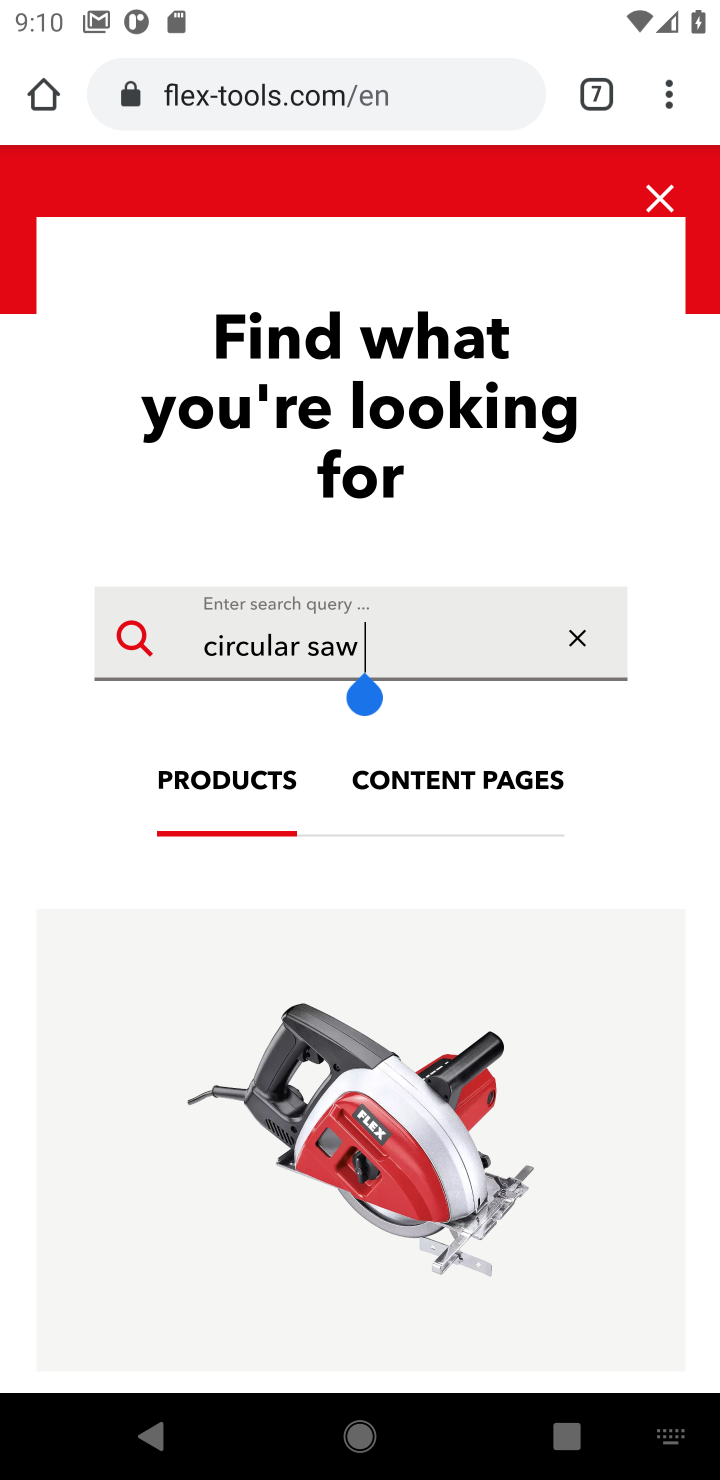
Step 28: click (140, 632)
Your task to perform on an android device: Search for the best rated circular saw on Lowes.com Image 29: 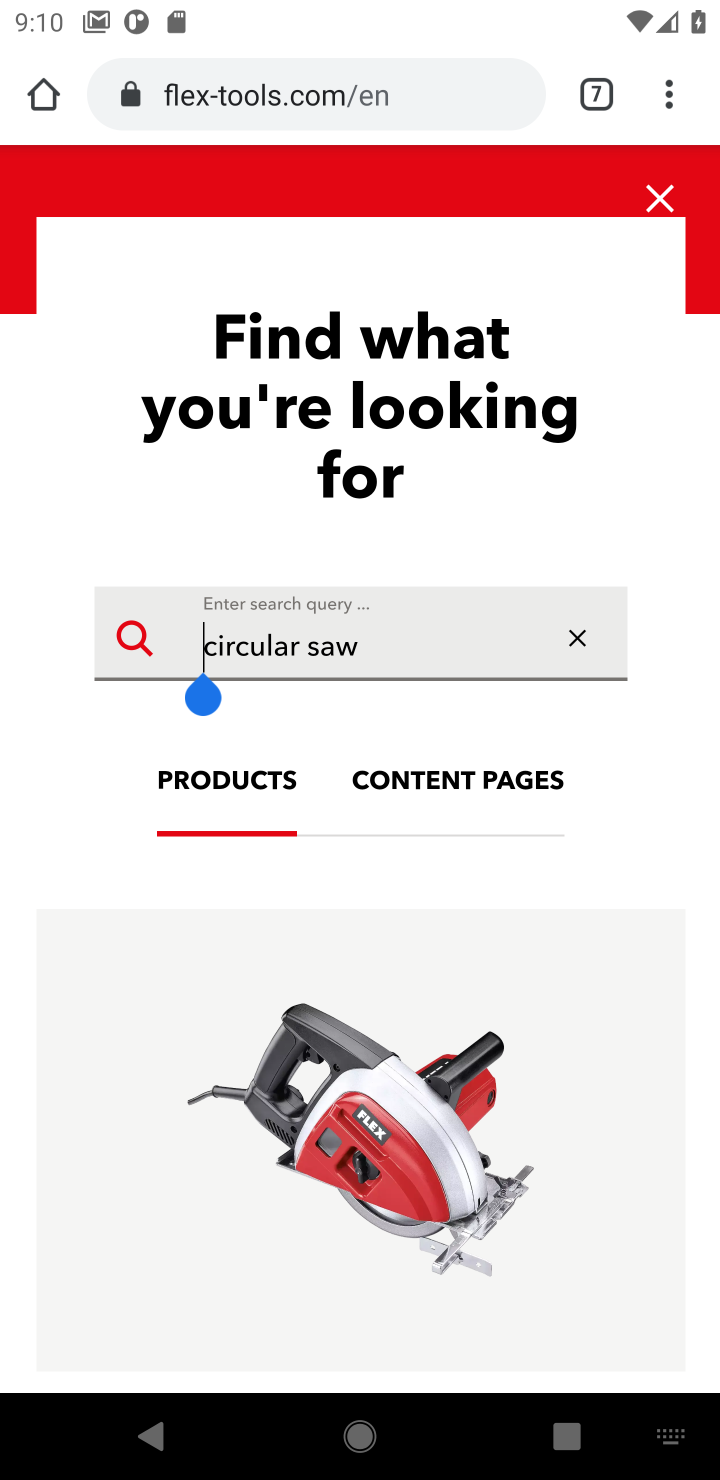
Step 29: task complete